Your task to perform on an android device: see creations saved in the google photos Image 0: 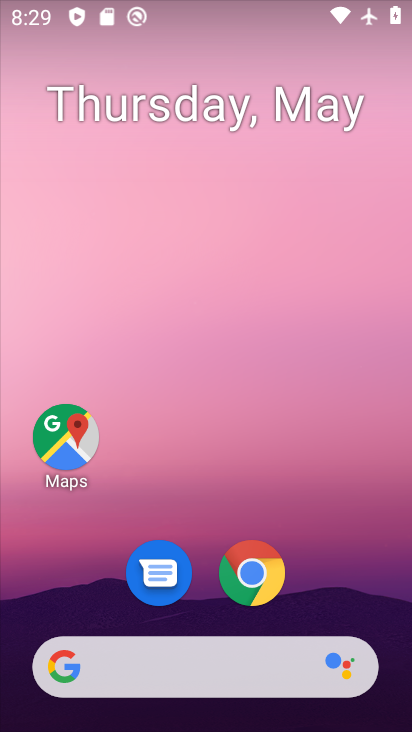
Step 0: drag from (345, 613) to (350, 132)
Your task to perform on an android device: see creations saved in the google photos Image 1: 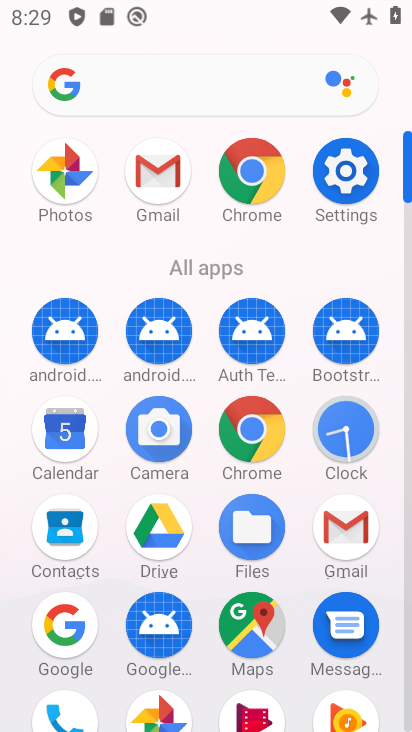
Step 1: click (66, 191)
Your task to perform on an android device: see creations saved in the google photos Image 2: 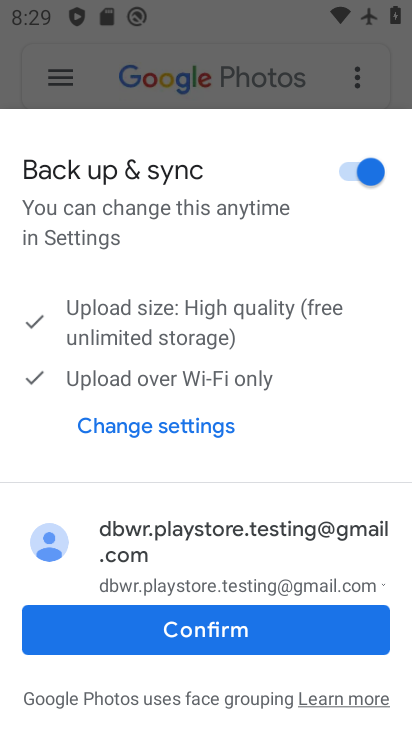
Step 2: click (192, 626)
Your task to perform on an android device: see creations saved in the google photos Image 3: 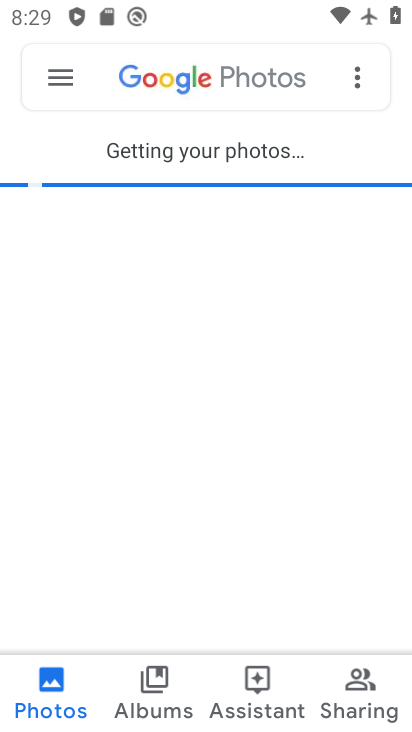
Step 3: click (63, 76)
Your task to perform on an android device: see creations saved in the google photos Image 4: 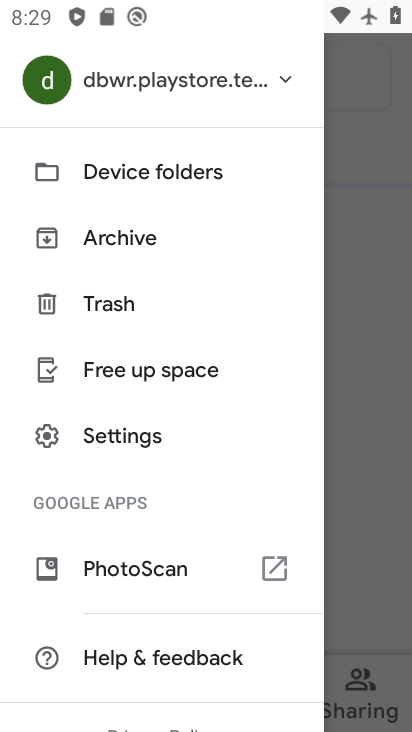
Step 4: click (350, 87)
Your task to perform on an android device: see creations saved in the google photos Image 5: 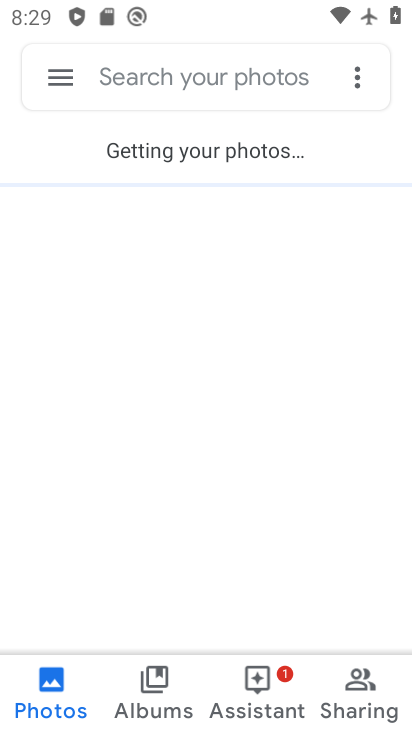
Step 5: click (256, 75)
Your task to perform on an android device: see creations saved in the google photos Image 6: 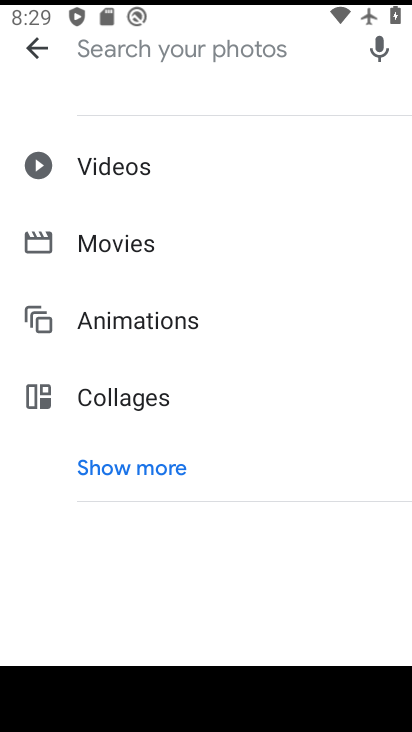
Step 6: click (123, 470)
Your task to perform on an android device: see creations saved in the google photos Image 7: 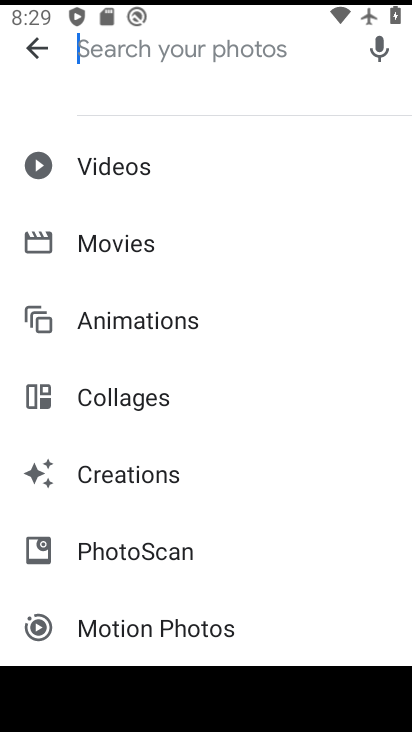
Step 7: click (167, 476)
Your task to perform on an android device: see creations saved in the google photos Image 8: 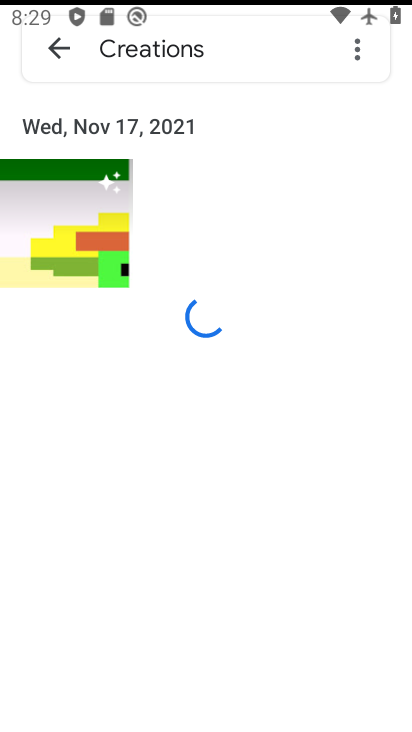
Step 8: task complete